Your task to perform on an android device: make emails show in primary in the gmail app Image 0: 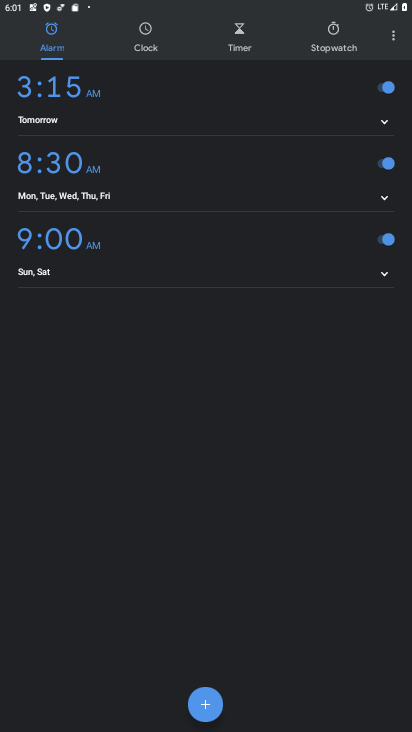
Step 0: press home button
Your task to perform on an android device: make emails show in primary in the gmail app Image 1: 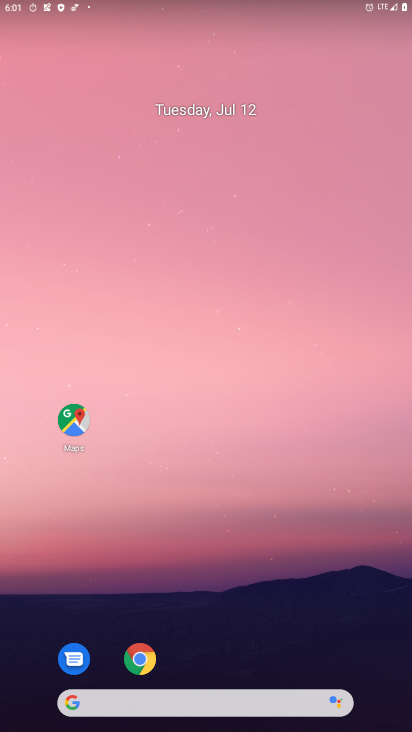
Step 1: drag from (241, 321) to (248, 210)
Your task to perform on an android device: make emails show in primary in the gmail app Image 2: 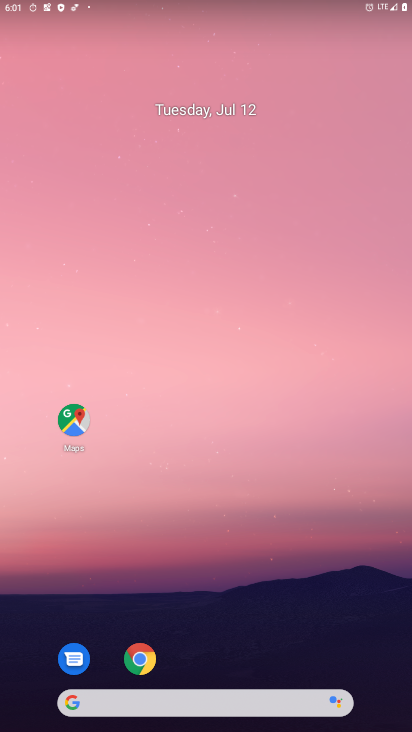
Step 2: drag from (189, 426) to (199, 227)
Your task to perform on an android device: make emails show in primary in the gmail app Image 3: 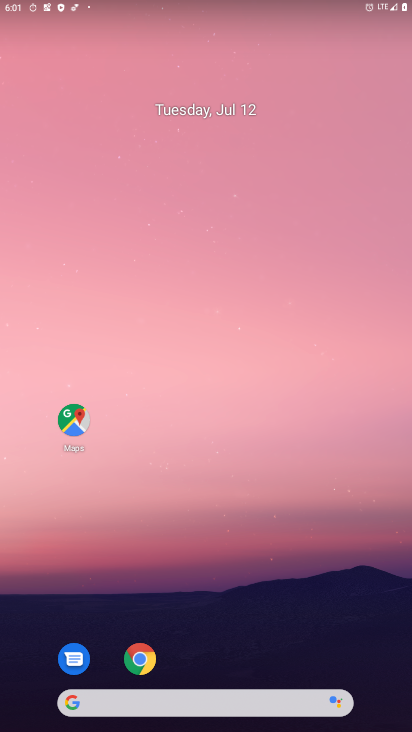
Step 3: drag from (211, 580) to (256, 26)
Your task to perform on an android device: make emails show in primary in the gmail app Image 4: 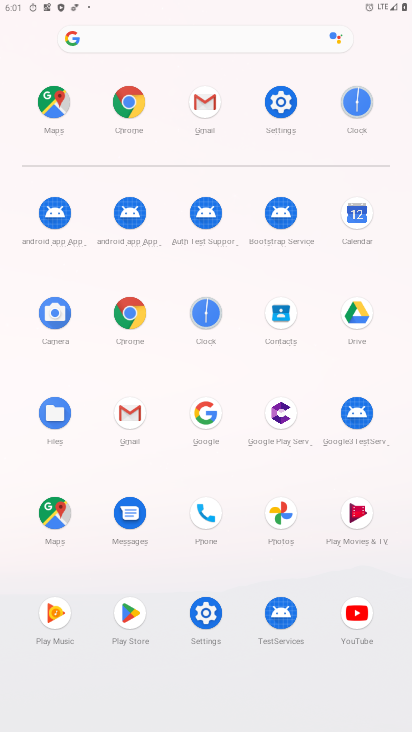
Step 4: click (195, 117)
Your task to perform on an android device: make emails show in primary in the gmail app Image 5: 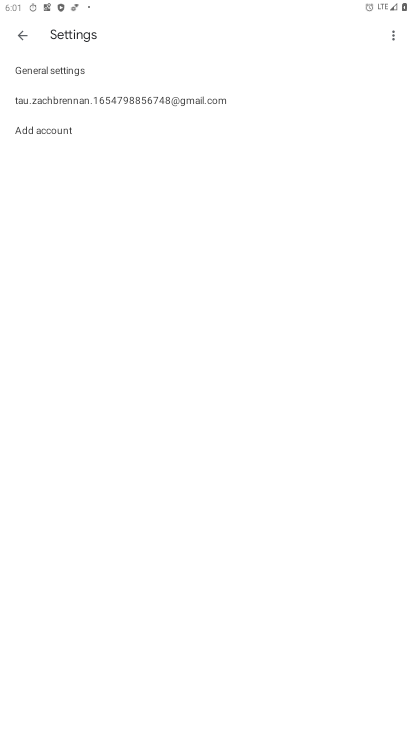
Step 5: click (166, 91)
Your task to perform on an android device: make emails show in primary in the gmail app Image 6: 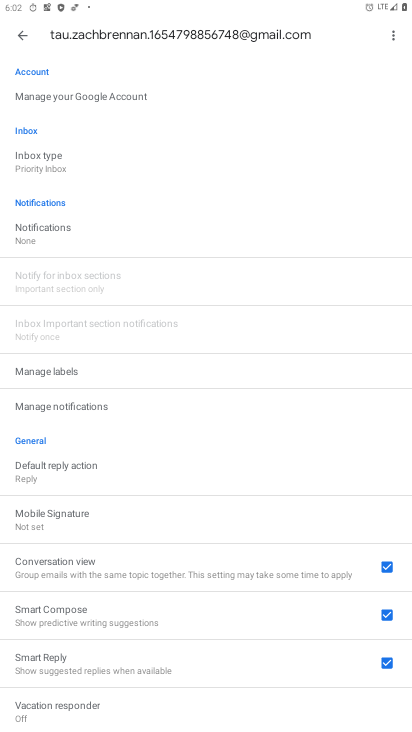
Step 6: task complete